Your task to perform on an android device: open app "Paramount+ | Peak Streaming" Image 0: 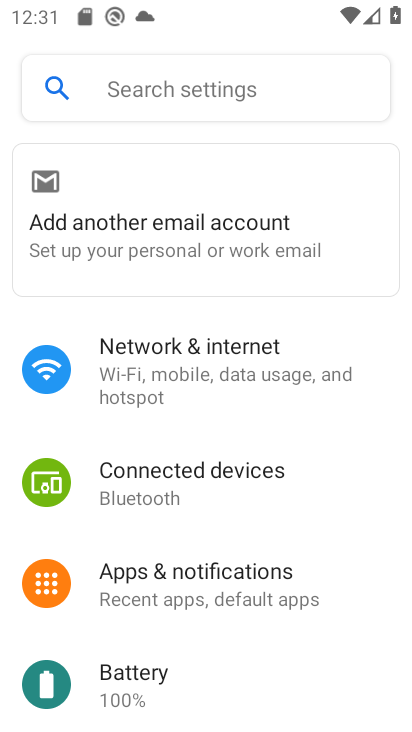
Step 0: press home button
Your task to perform on an android device: open app "Paramount+ | Peak Streaming" Image 1: 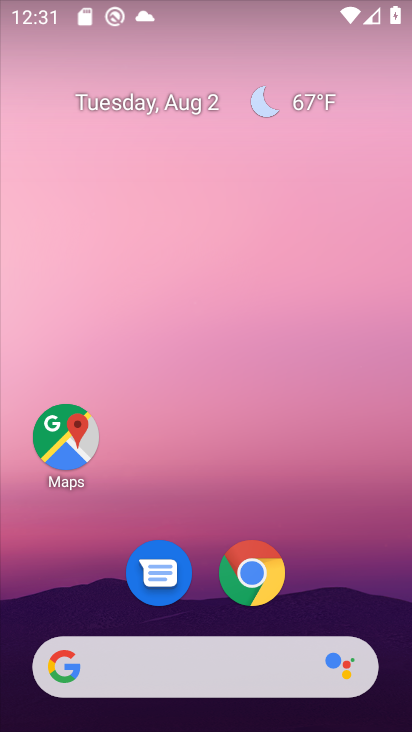
Step 1: drag from (171, 656) to (75, 490)
Your task to perform on an android device: open app "Paramount+ | Peak Streaming" Image 2: 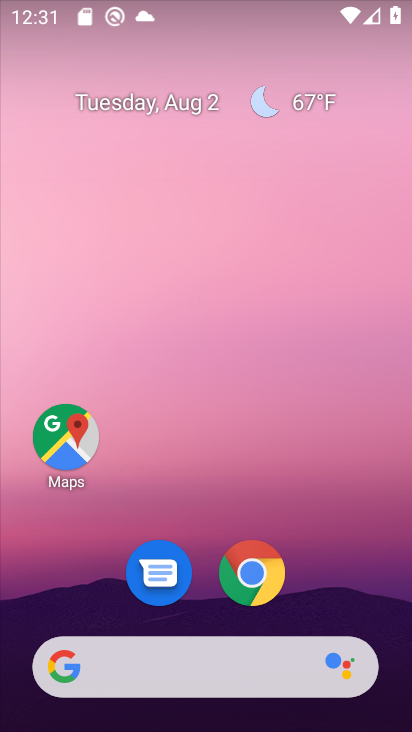
Step 2: drag from (234, 647) to (208, 1)
Your task to perform on an android device: open app "Paramount+ | Peak Streaming" Image 3: 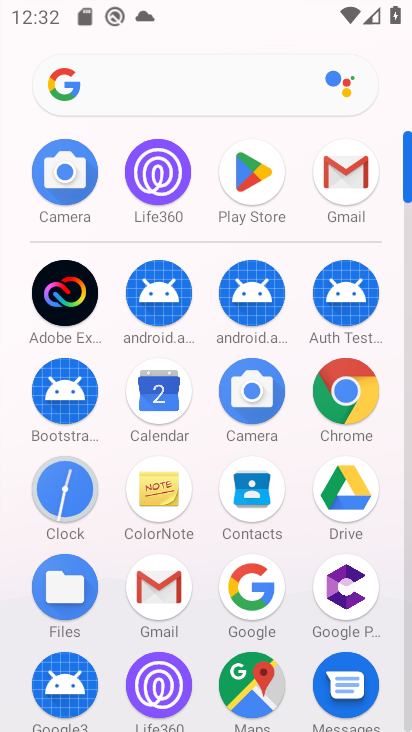
Step 3: click (264, 181)
Your task to perform on an android device: open app "Paramount+ | Peak Streaming" Image 4: 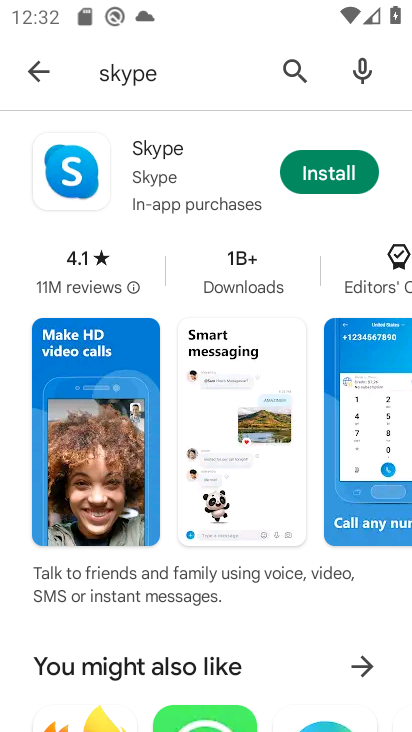
Step 4: click (264, 181)
Your task to perform on an android device: open app "Paramount+ | Peak Streaming" Image 5: 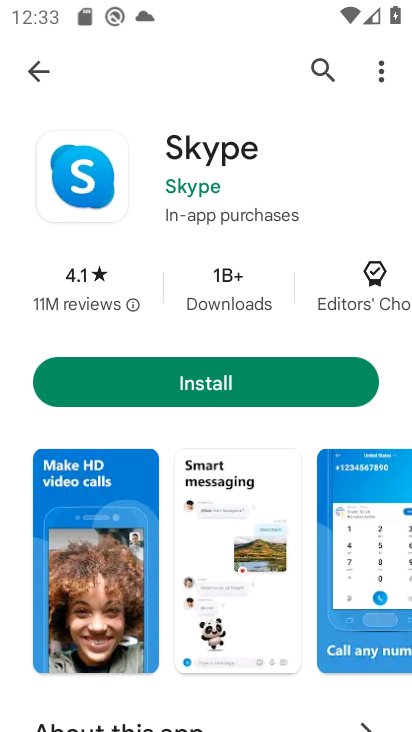
Step 5: press home button
Your task to perform on an android device: open app "Paramount+ | Peak Streaming" Image 6: 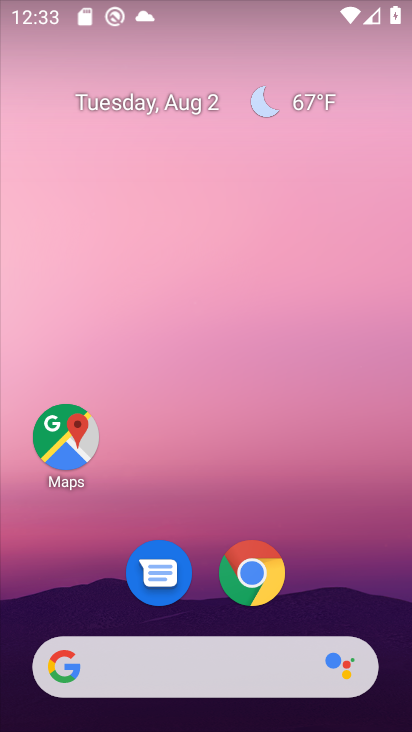
Step 6: drag from (208, 659) to (157, 28)
Your task to perform on an android device: open app "Paramount+ | Peak Streaming" Image 7: 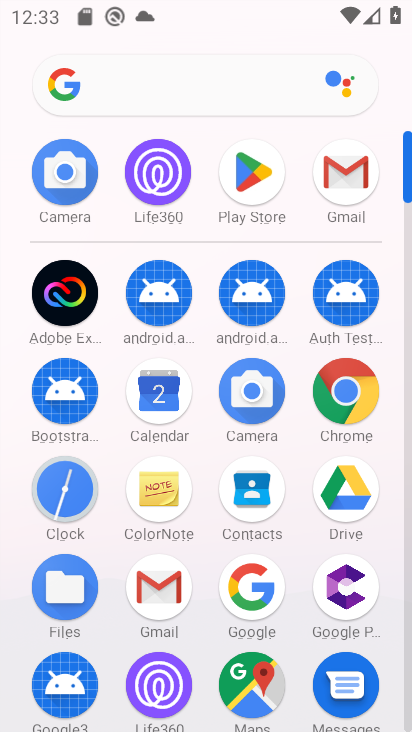
Step 7: click (261, 164)
Your task to perform on an android device: open app "Paramount+ | Peak Streaming" Image 8: 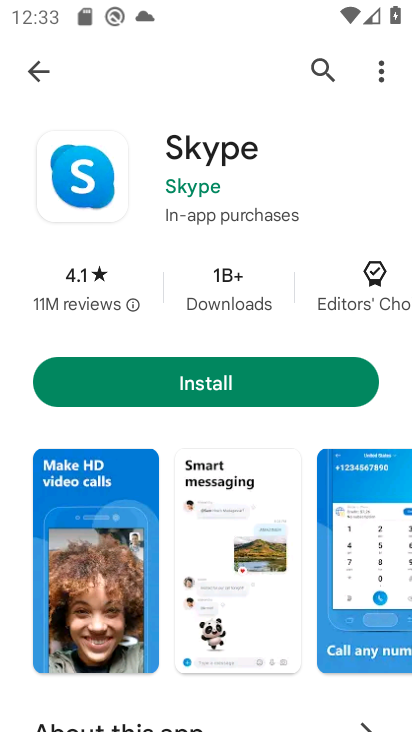
Step 8: click (318, 76)
Your task to perform on an android device: open app "Paramount+ | Peak Streaming" Image 9: 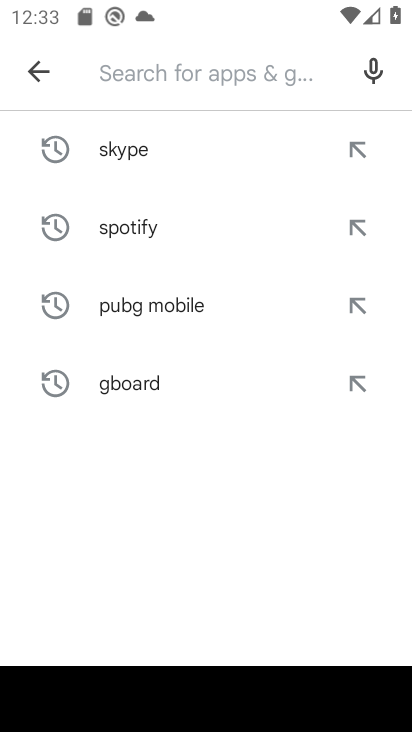
Step 9: type "paramount+ | peak streaming"
Your task to perform on an android device: open app "Paramount+ | Peak Streaming" Image 10: 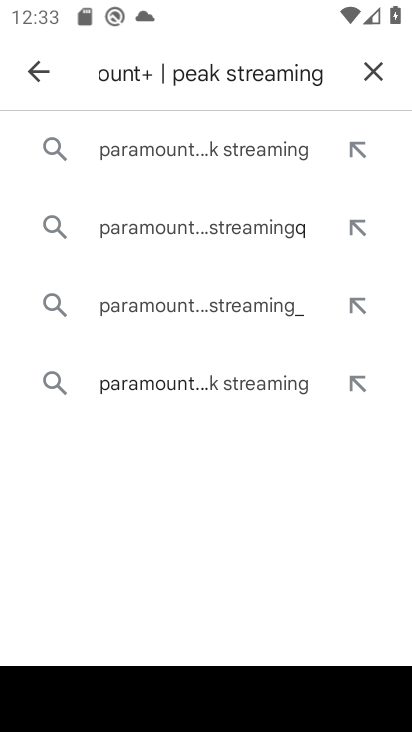
Step 10: click (254, 145)
Your task to perform on an android device: open app "Paramount+ | Peak Streaming" Image 11: 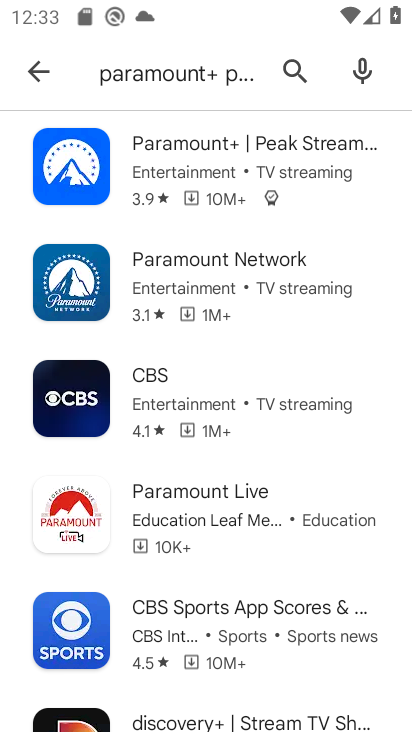
Step 11: click (254, 145)
Your task to perform on an android device: open app "Paramount+ | Peak Streaming" Image 12: 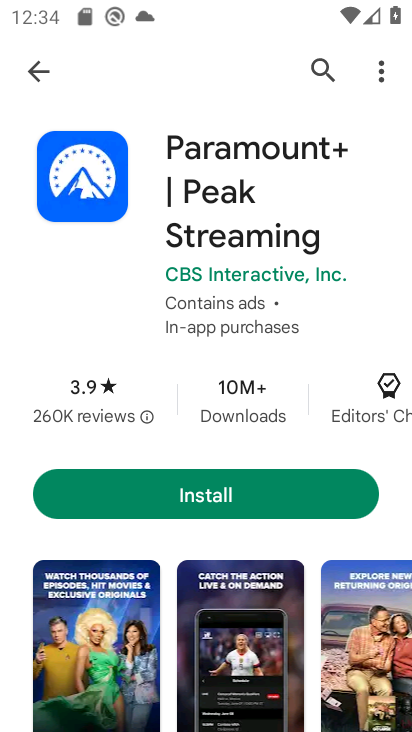
Step 12: task complete